Your task to perform on an android device: choose inbox layout in the gmail app Image 0: 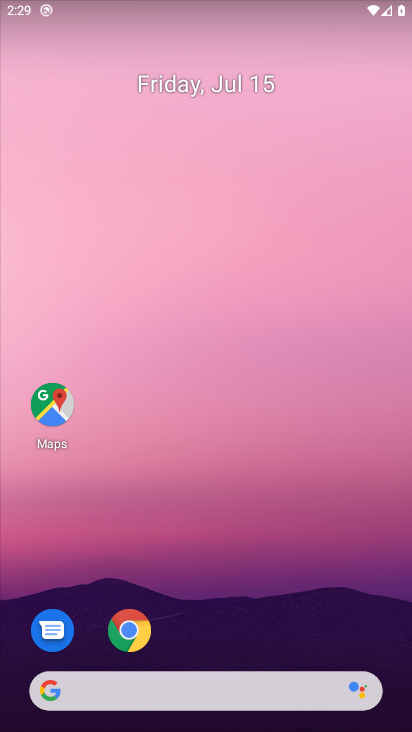
Step 0: press home button
Your task to perform on an android device: choose inbox layout in the gmail app Image 1: 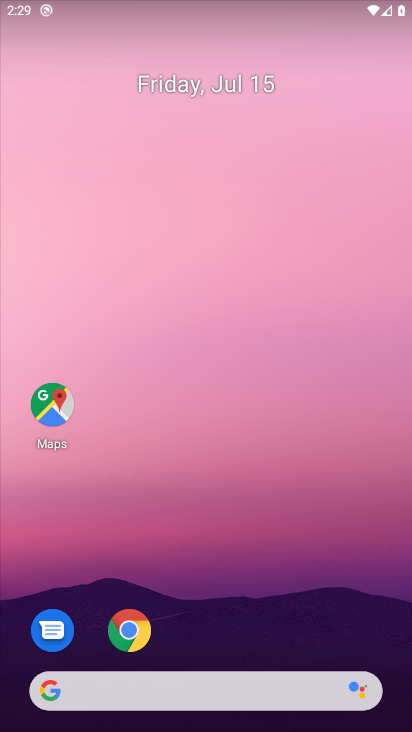
Step 1: press home button
Your task to perform on an android device: choose inbox layout in the gmail app Image 2: 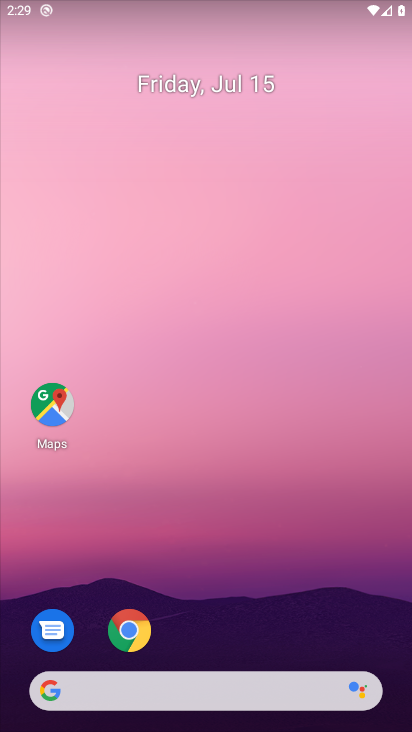
Step 2: drag from (317, 605) to (322, 40)
Your task to perform on an android device: choose inbox layout in the gmail app Image 3: 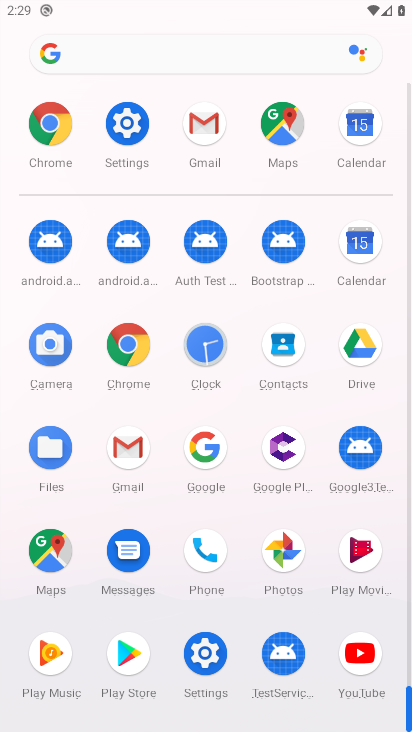
Step 3: click (198, 129)
Your task to perform on an android device: choose inbox layout in the gmail app Image 4: 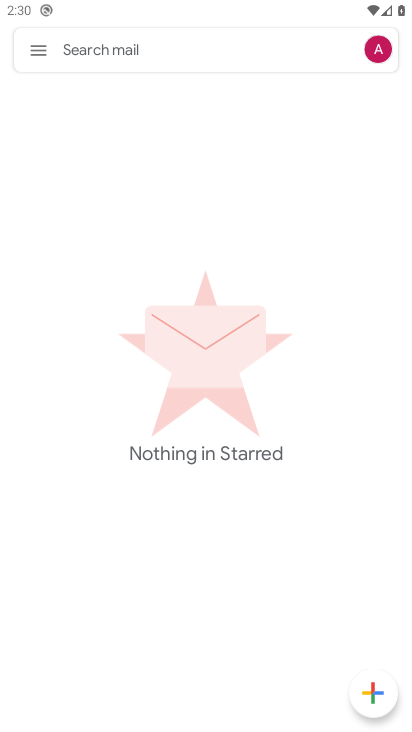
Step 4: click (42, 51)
Your task to perform on an android device: choose inbox layout in the gmail app Image 5: 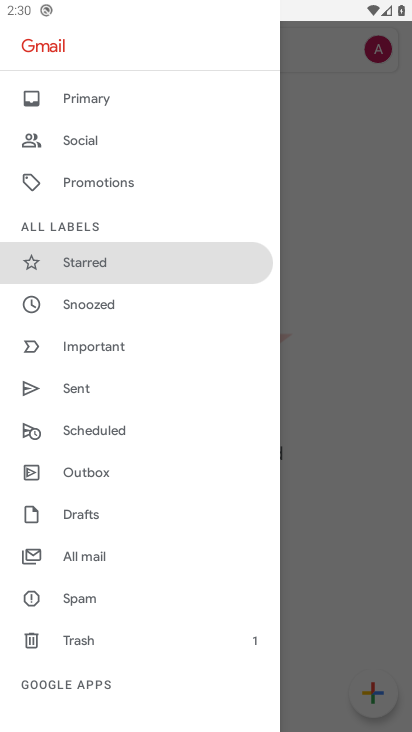
Step 5: drag from (94, 689) to (90, 338)
Your task to perform on an android device: choose inbox layout in the gmail app Image 6: 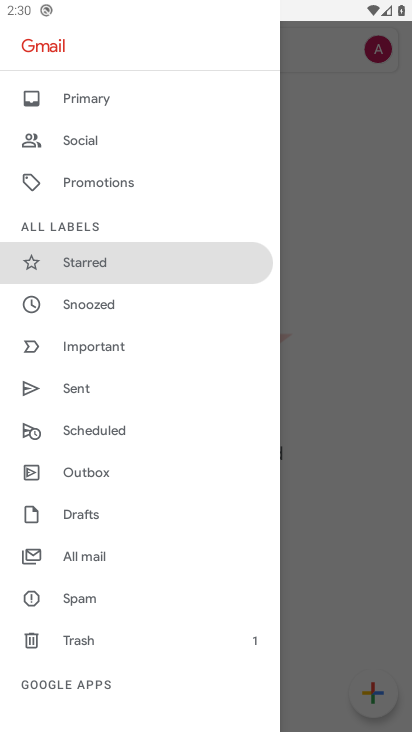
Step 6: drag from (94, 695) to (97, 327)
Your task to perform on an android device: choose inbox layout in the gmail app Image 7: 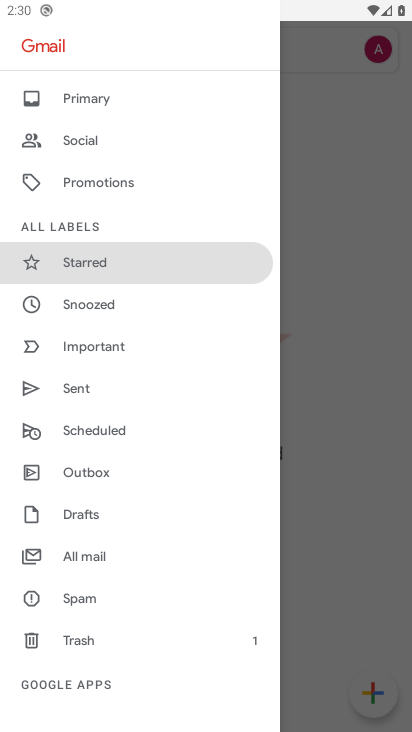
Step 7: drag from (173, 693) to (164, 210)
Your task to perform on an android device: choose inbox layout in the gmail app Image 8: 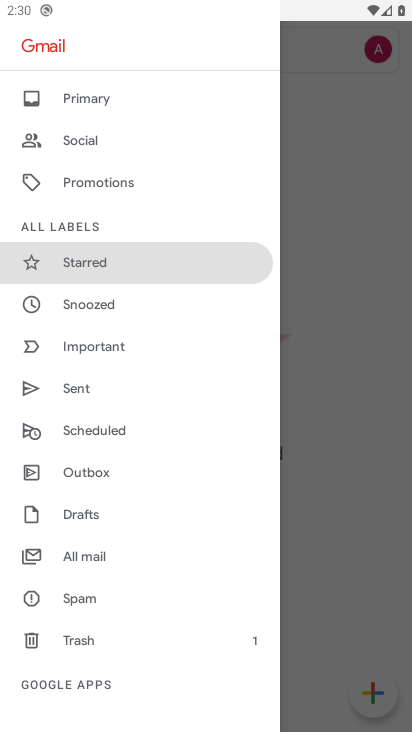
Step 8: drag from (199, 661) to (181, 173)
Your task to perform on an android device: choose inbox layout in the gmail app Image 9: 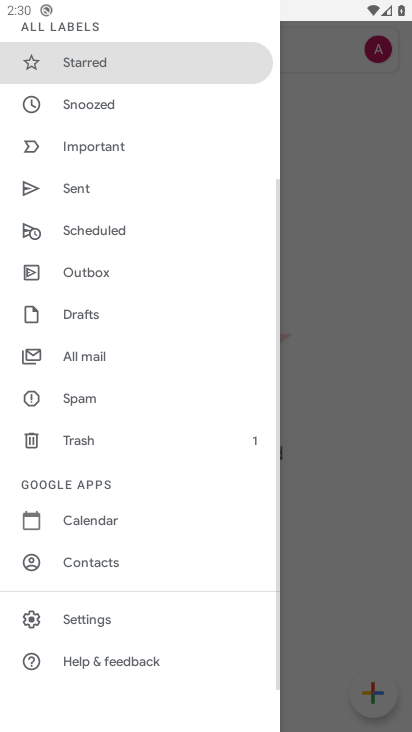
Step 9: click (90, 614)
Your task to perform on an android device: choose inbox layout in the gmail app Image 10: 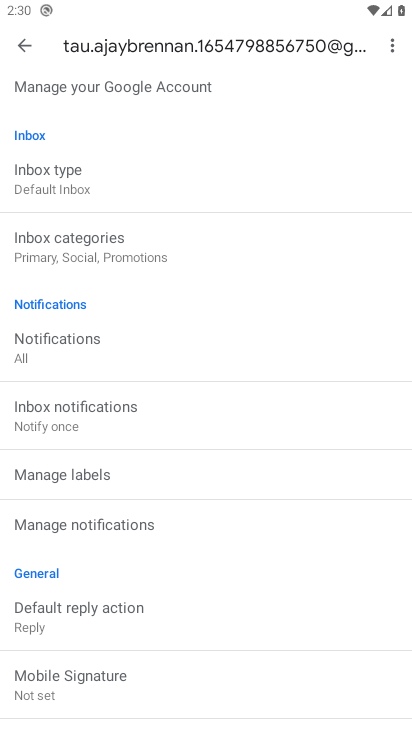
Step 10: click (54, 177)
Your task to perform on an android device: choose inbox layout in the gmail app Image 11: 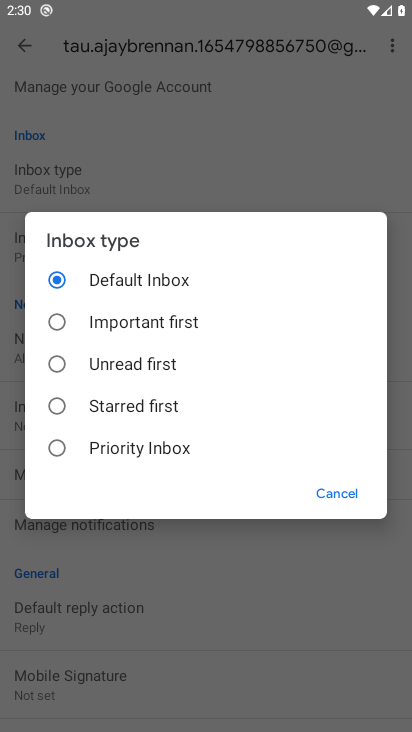
Step 11: click (130, 192)
Your task to perform on an android device: choose inbox layout in the gmail app Image 12: 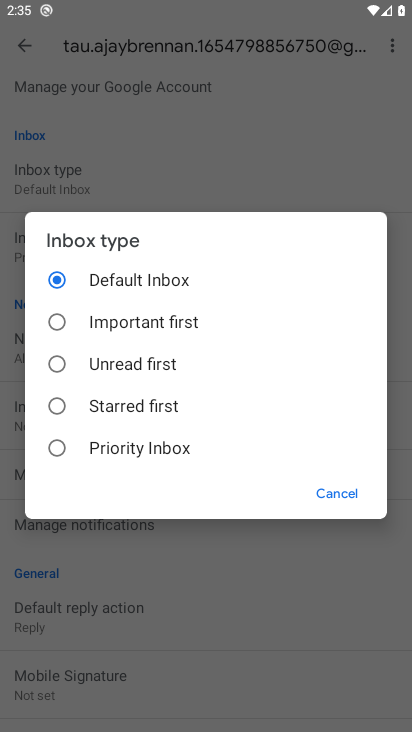
Step 12: press home button
Your task to perform on an android device: choose inbox layout in the gmail app Image 13: 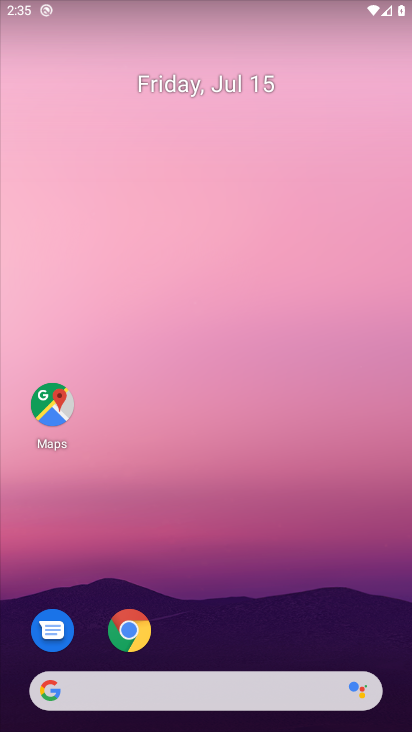
Step 13: drag from (283, 569) to (262, 53)
Your task to perform on an android device: choose inbox layout in the gmail app Image 14: 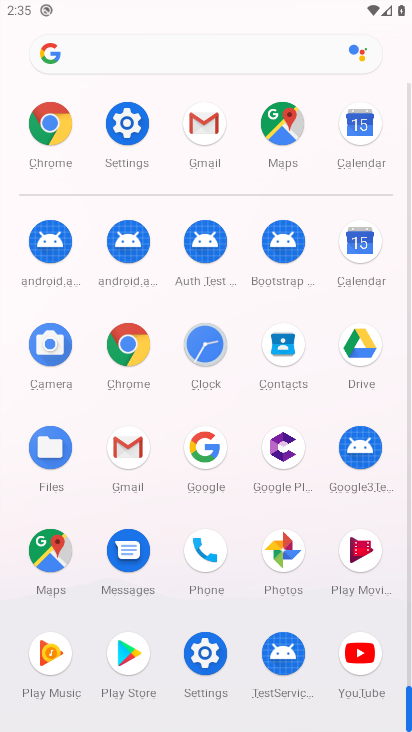
Step 14: click (216, 128)
Your task to perform on an android device: choose inbox layout in the gmail app Image 15: 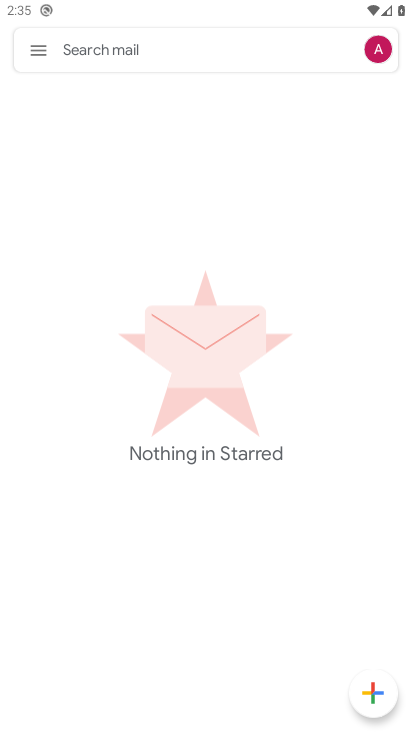
Step 15: click (44, 53)
Your task to perform on an android device: choose inbox layout in the gmail app Image 16: 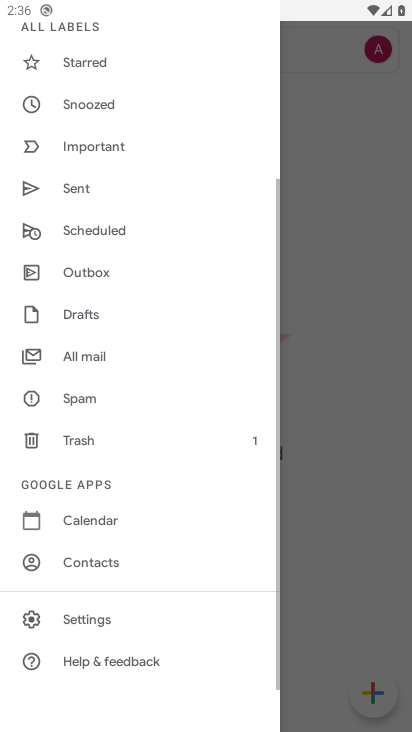
Step 16: click (124, 622)
Your task to perform on an android device: choose inbox layout in the gmail app Image 17: 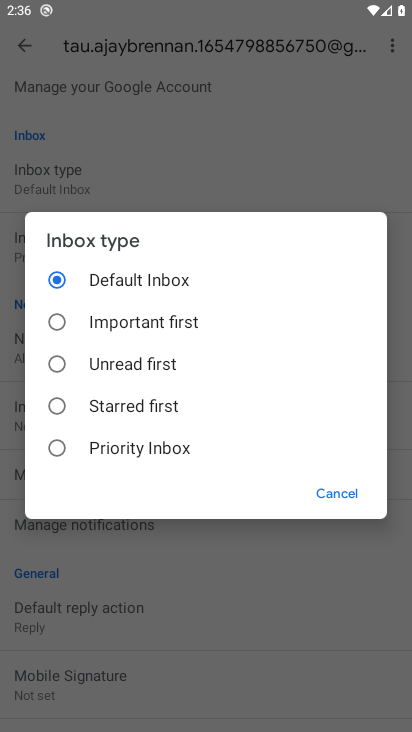
Step 17: click (204, 195)
Your task to perform on an android device: choose inbox layout in the gmail app Image 18: 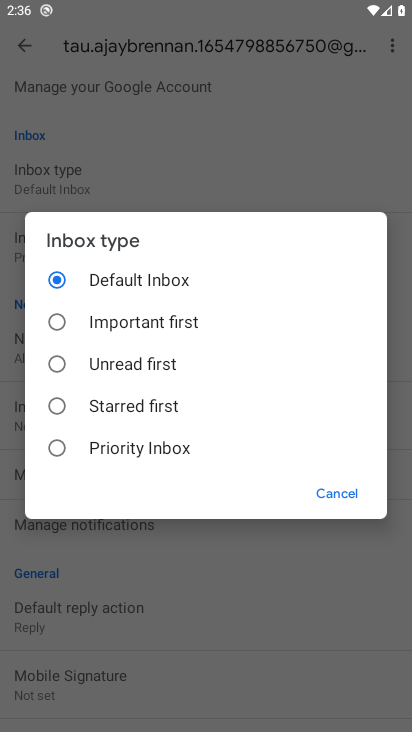
Step 18: click (339, 486)
Your task to perform on an android device: choose inbox layout in the gmail app Image 19: 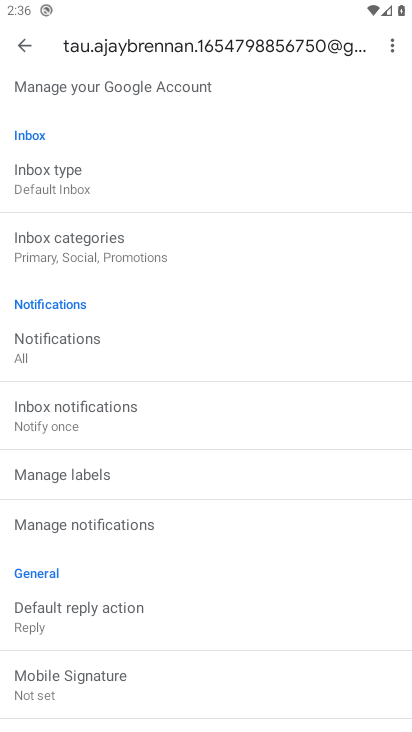
Step 19: click (83, 240)
Your task to perform on an android device: choose inbox layout in the gmail app Image 20: 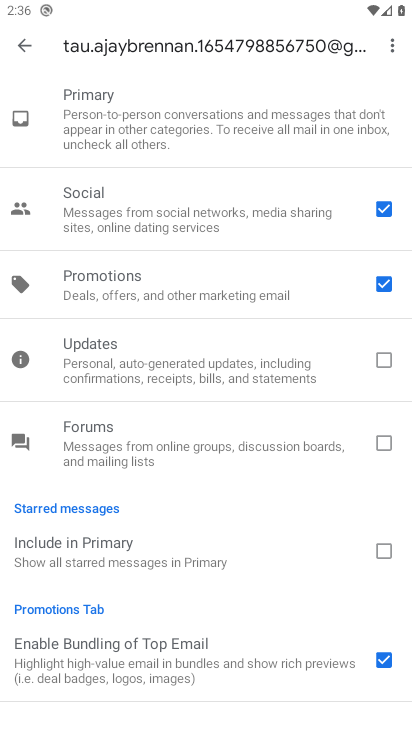
Step 20: task complete